Your task to perform on an android device: turn on bluetooth scan Image 0: 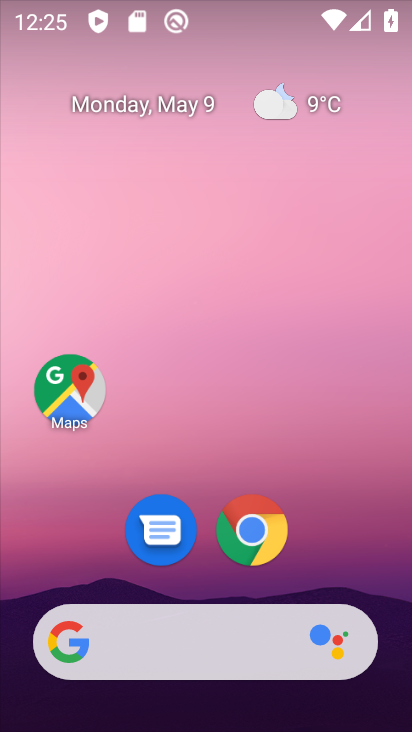
Step 0: drag from (346, 466) to (352, 78)
Your task to perform on an android device: turn on bluetooth scan Image 1: 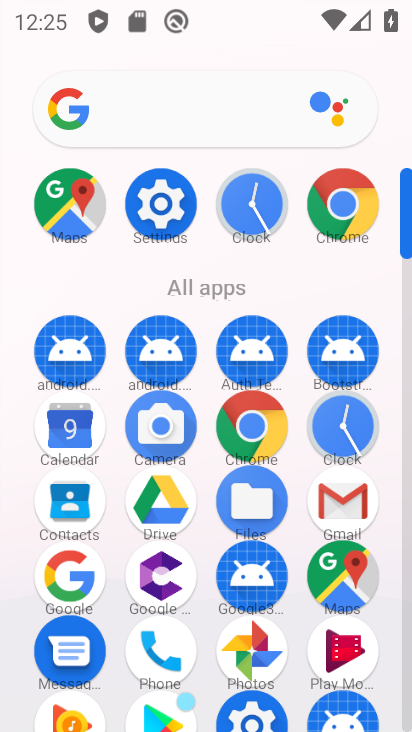
Step 1: click (168, 208)
Your task to perform on an android device: turn on bluetooth scan Image 2: 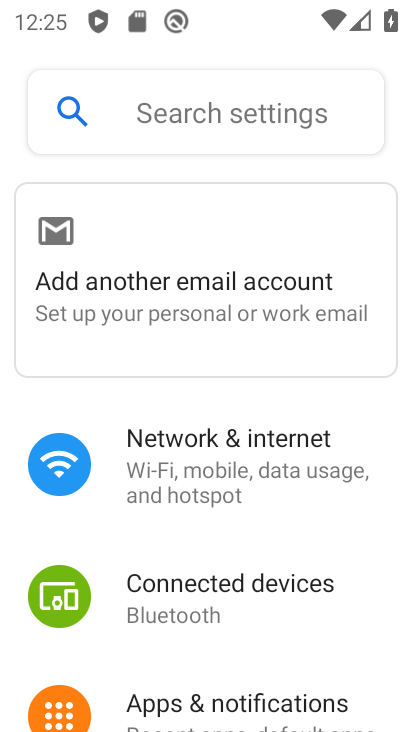
Step 2: click (271, 103)
Your task to perform on an android device: turn on bluetooth scan Image 3: 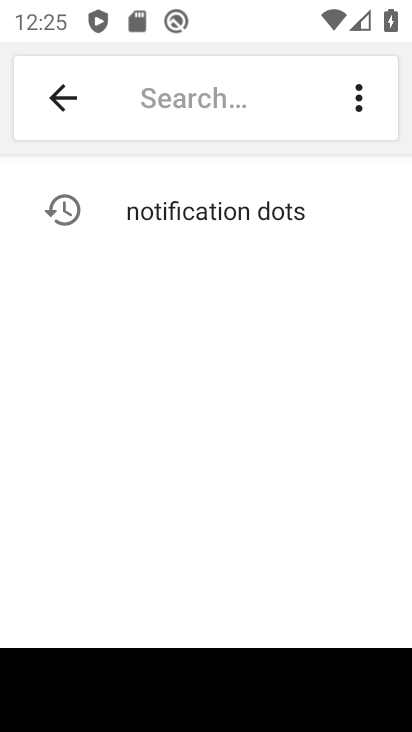
Step 3: type " bluetooth scan"
Your task to perform on an android device: turn on bluetooth scan Image 4: 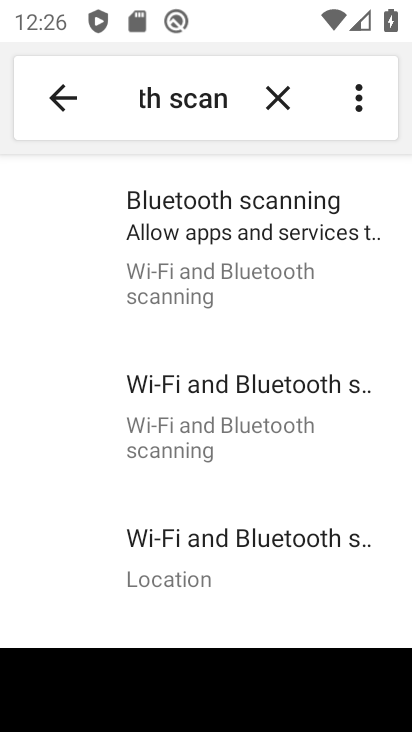
Step 4: click (241, 252)
Your task to perform on an android device: turn on bluetooth scan Image 5: 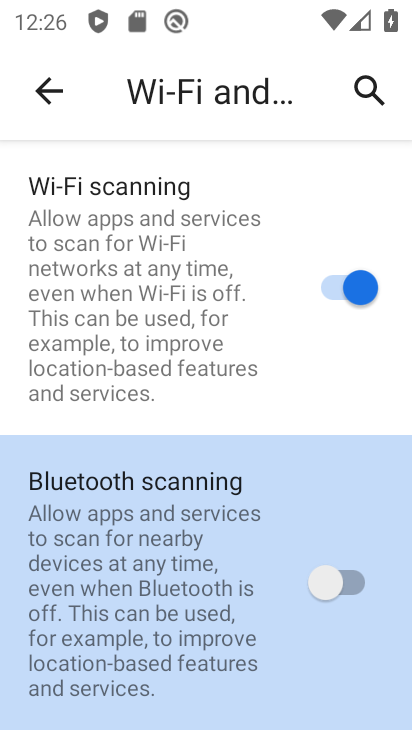
Step 5: click (340, 586)
Your task to perform on an android device: turn on bluetooth scan Image 6: 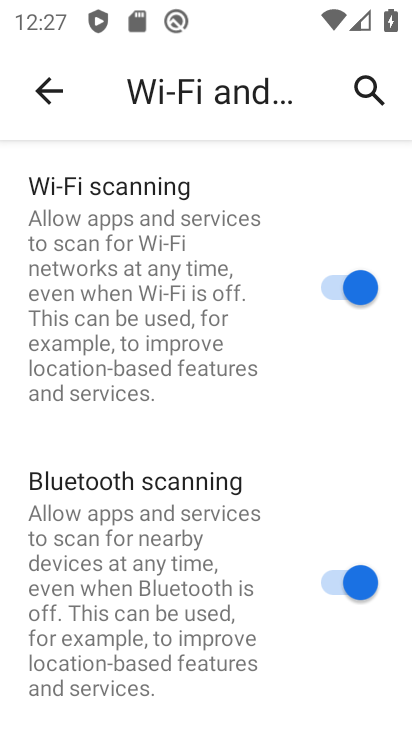
Step 6: task complete